Your task to perform on an android device: Go to wifi settings Image 0: 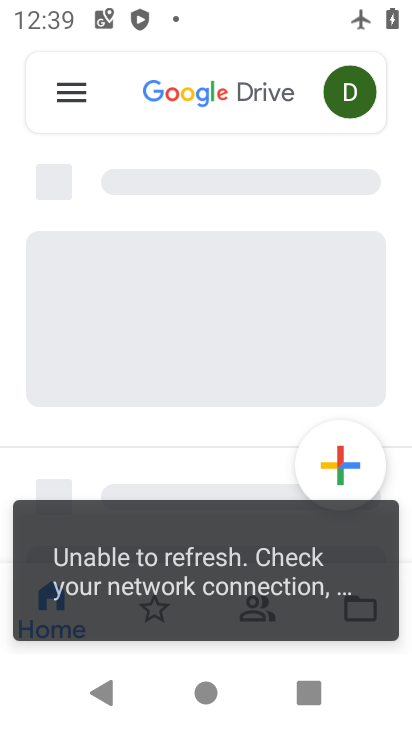
Step 0: press back button
Your task to perform on an android device: Go to wifi settings Image 1: 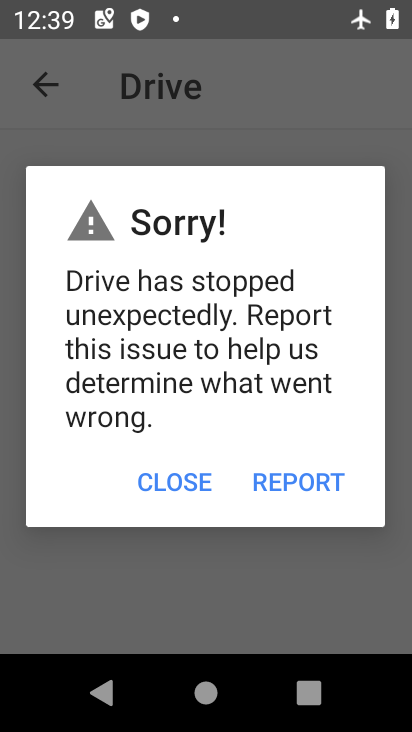
Step 1: press home button
Your task to perform on an android device: Go to wifi settings Image 2: 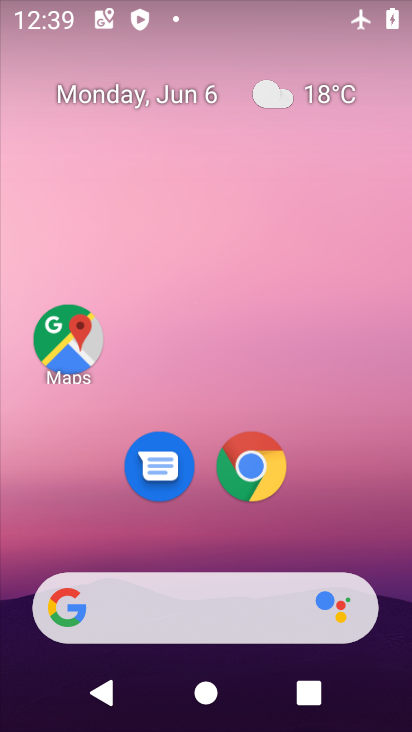
Step 2: drag from (410, 603) to (272, 24)
Your task to perform on an android device: Go to wifi settings Image 3: 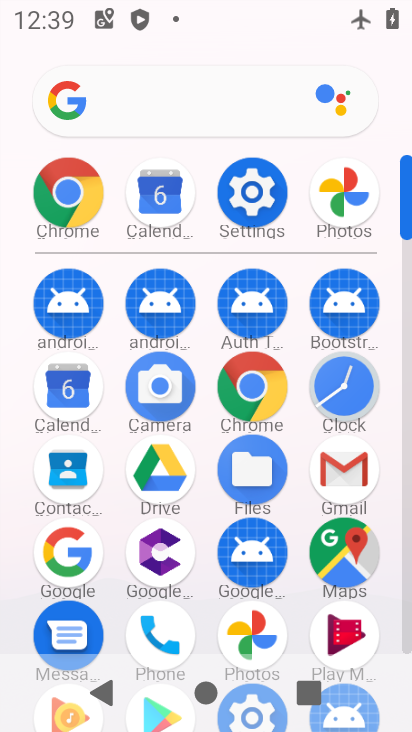
Step 3: click (251, 186)
Your task to perform on an android device: Go to wifi settings Image 4: 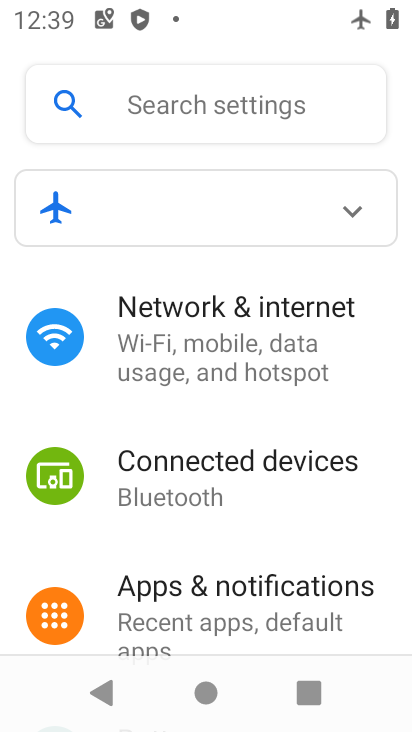
Step 4: click (209, 357)
Your task to perform on an android device: Go to wifi settings Image 5: 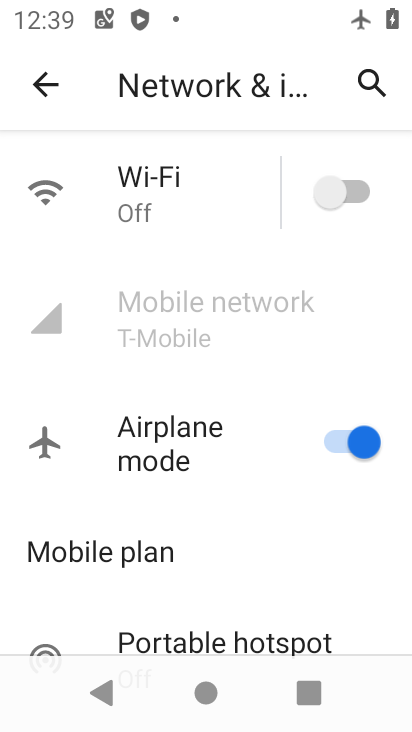
Step 5: click (206, 188)
Your task to perform on an android device: Go to wifi settings Image 6: 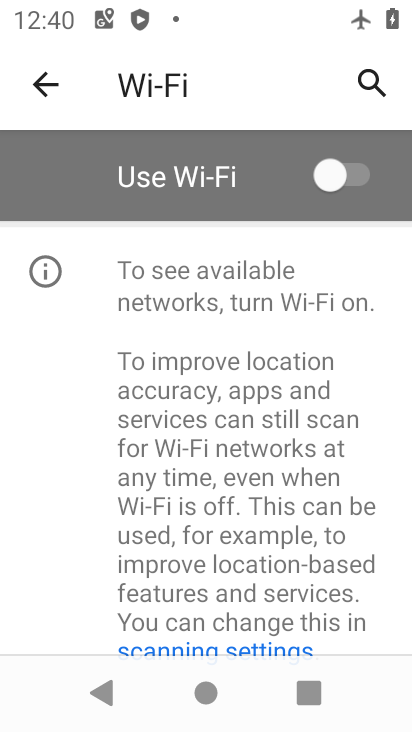
Step 6: task complete